Your task to perform on an android device: turn on bluetooth scan Image 0: 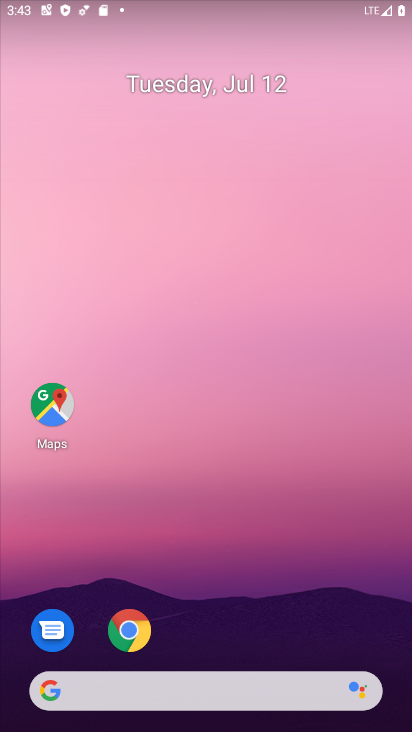
Step 0: drag from (281, 704) to (302, 25)
Your task to perform on an android device: turn on bluetooth scan Image 1: 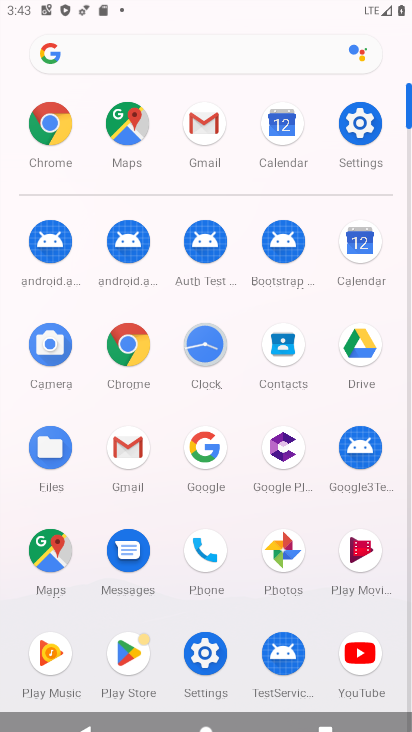
Step 1: click (348, 119)
Your task to perform on an android device: turn on bluetooth scan Image 2: 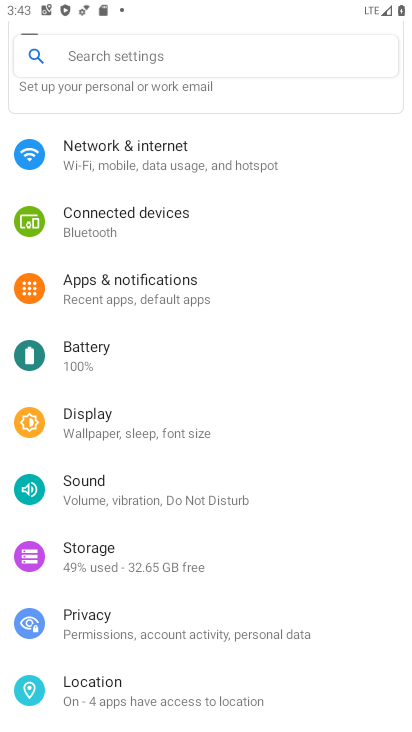
Step 2: drag from (205, 281) to (253, 645)
Your task to perform on an android device: turn on bluetooth scan Image 3: 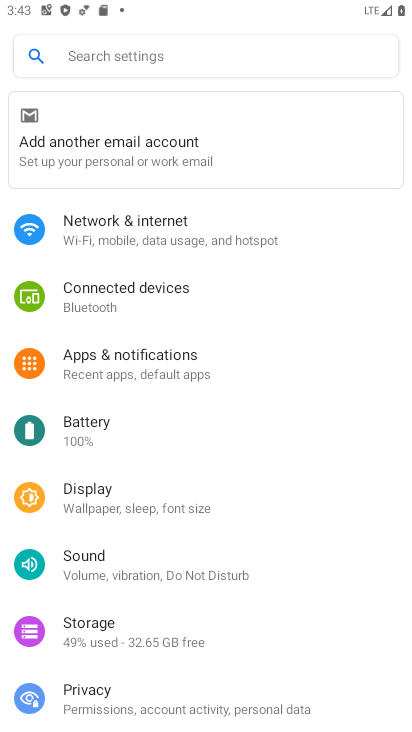
Step 3: drag from (152, 695) to (190, 276)
Your task to perform on an android device: turn on bluetooth scan Image 4: 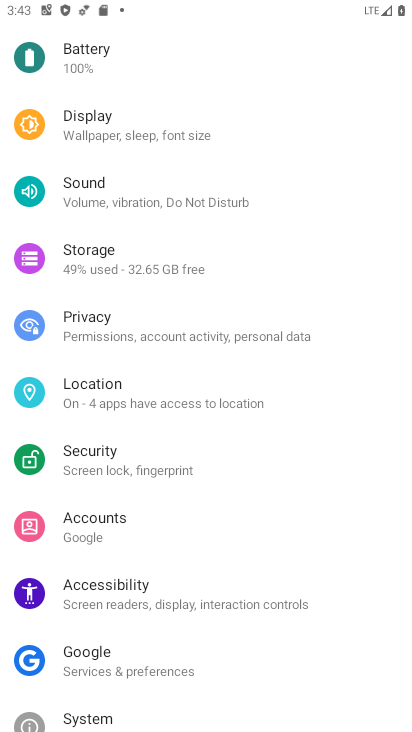
Step 4: click (145, 407)
Your task to perform on an android device: turn on bluetooth scan Image 5: 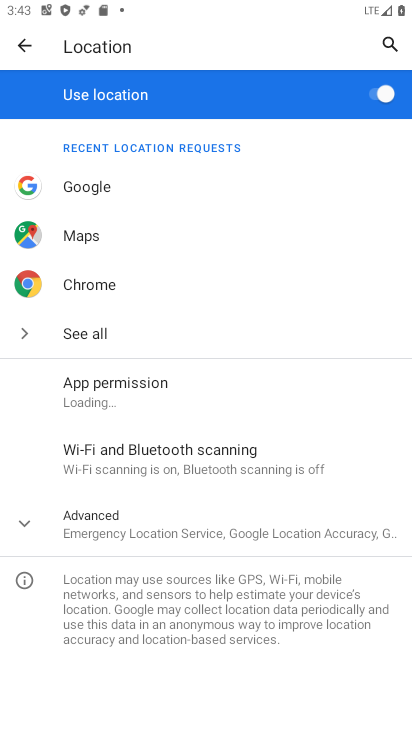
Step 5: click (133, 462)
Your task to perform on an android device: turn on bluetooth scan Image 6: 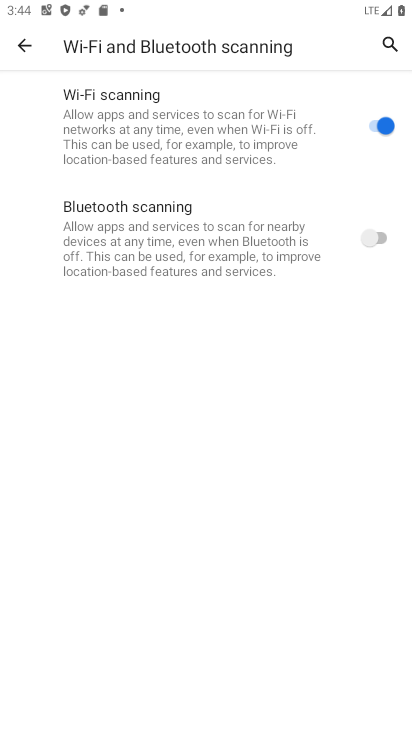
Step 6: click (385, 236)
Your task to perform on an android device: turn on bluetooth scan Image 7: 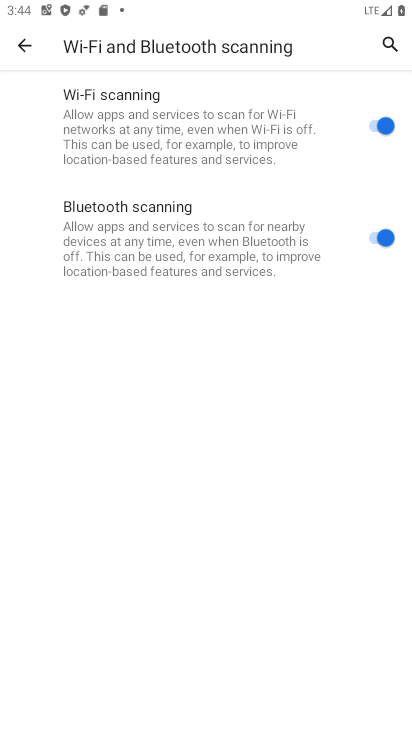
Step 7: task complete